Your task to perform on an android device: open a bookmark in the chrome app Image 0: 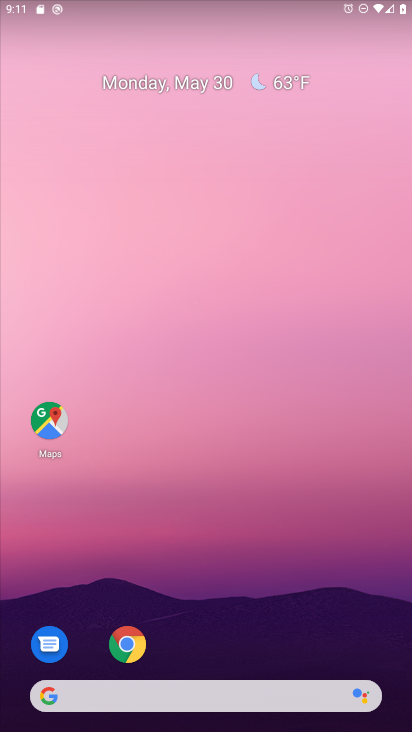
Step 0: click (130, 646)
Your task to perform on an android device: open a bookmark in the chrome app Image 1: 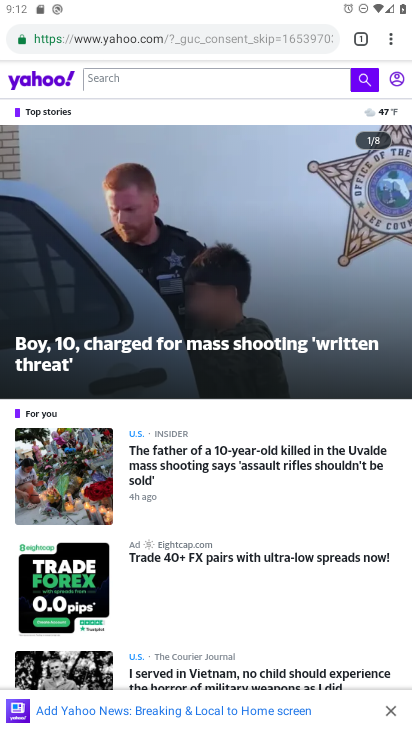
Step 1: click (383, 36)
Your task to perform on an android device: open a bookmark in the chrome app Image 2: 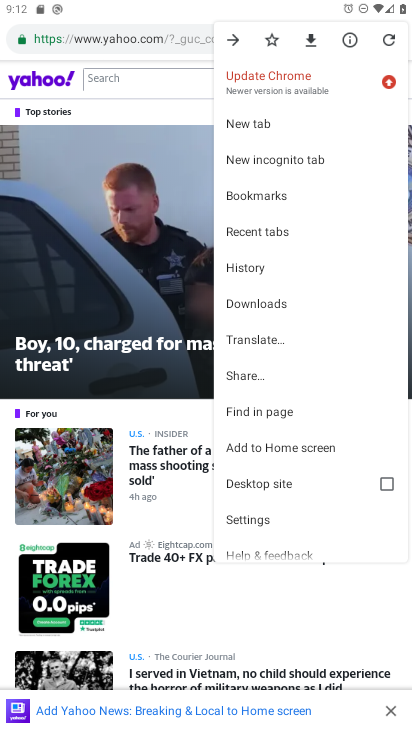
Step 2: click (282, 195)
Your task to perform on an android device: open a bookmark in the chrome app Image 3: 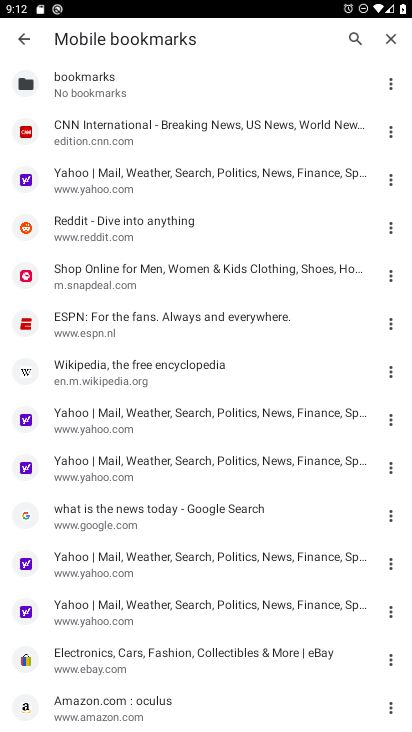
Step 3: click (93, 375)
Your task to perform on an android device: open a bookmark in the chrome app Image 4: 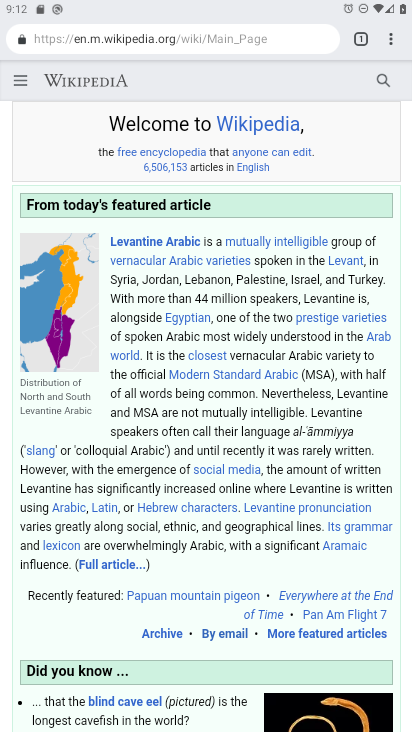
Step 4: task complete